Your task to perform on an android device: read, delete, or share a saved page in the chrome app Image 0: 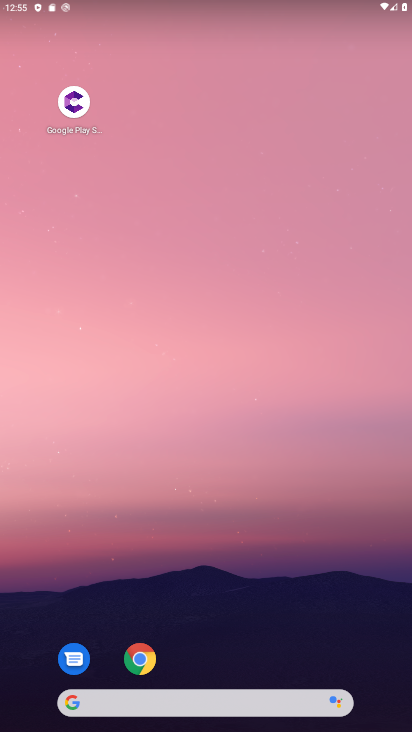
Step 0: click (138, 653)
Your task to perform on an android device: read, delete, or share a saved page in the chrome app Image 1: 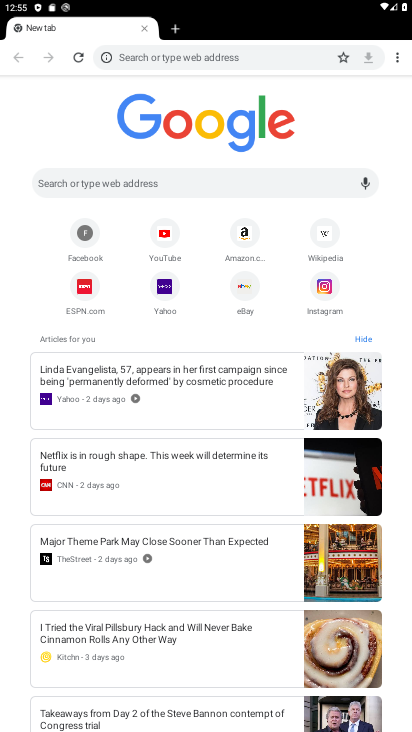
Step 1: click (399, 52)
Your task to perform on an android device: read, delete, or share a saved page in the chrome app Image 2: 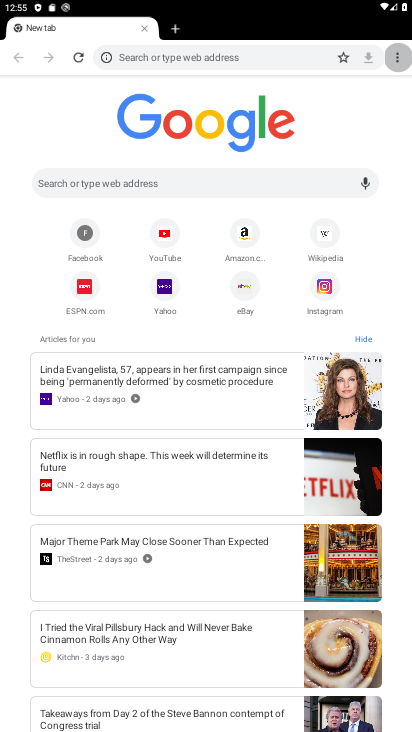
Step 2: drag from (399, 52) to (279, 203)
Your task to perform on an android device: read, delete, or share a saved page in the chrome app Image 3: 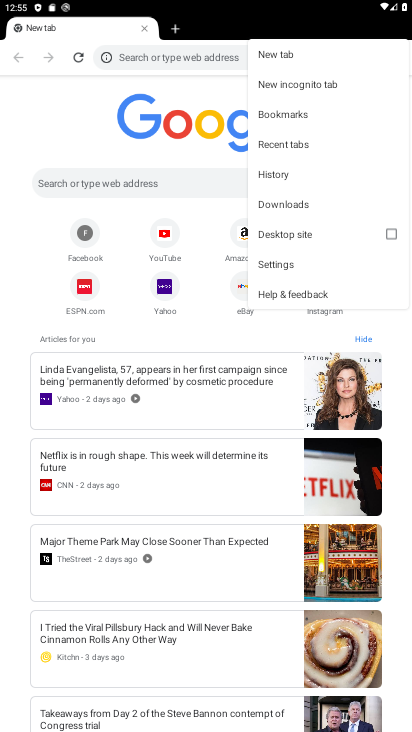
Step 3: click (279, 203)
Your task to perform on an android device: read, delete, or share a saved page in the chrome app Image 4: 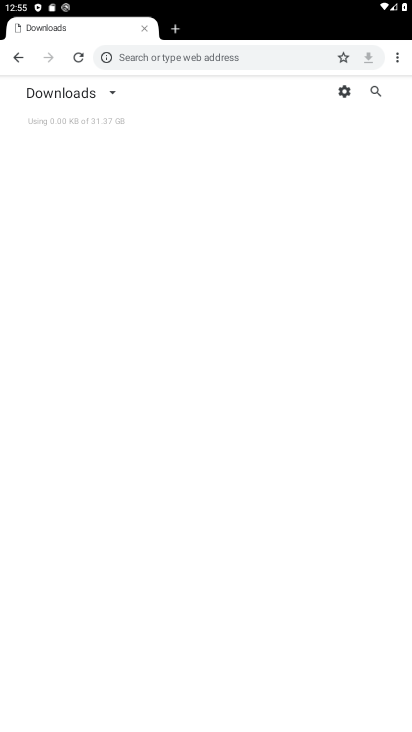
Step 4: task complete